Your task to perform on an android device: turn off sleep mode Image 0: 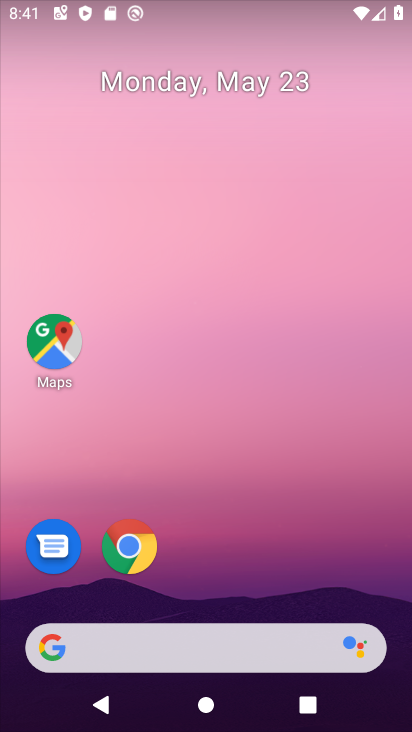
Step 0: drag from (392, 614) to (329, 117)
Your task to perform on an android device: turn off sleep mode Image 1: 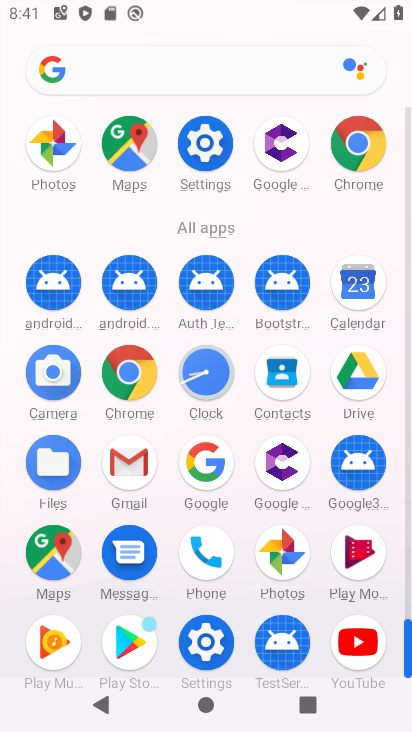
Step 1: click (206, 641)
Your task to perform on an android device: turn off sleep mode Image 2: 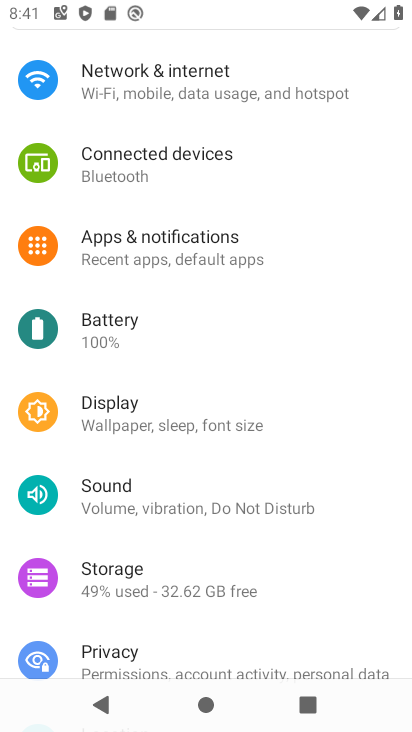
Step 2: click (157, 423)
Your task to perform on an android device: turn off sleep mode Image 3: 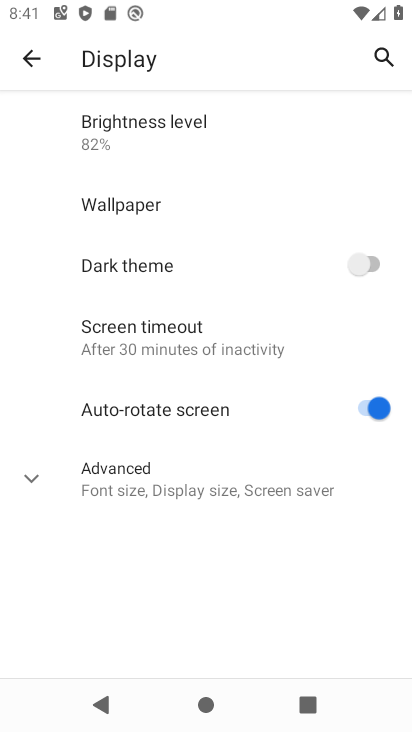
Step 3: click (35, 480)
Your task to perform on an android device: turn off sleep mode Image 4: 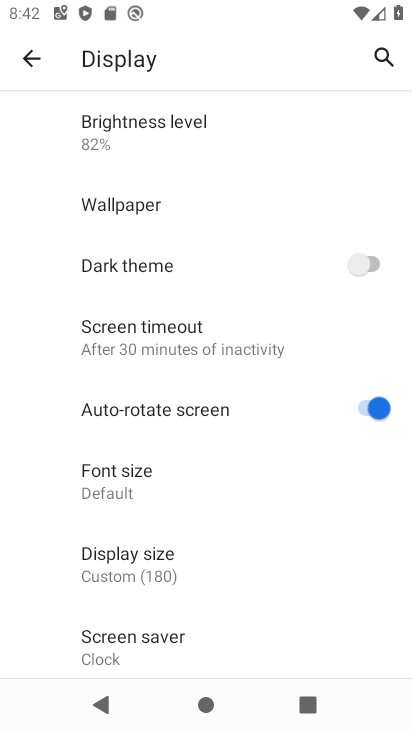
Step 4: task complete